Your task to perform on an android device: Search for hotels in Sydney Image 0: 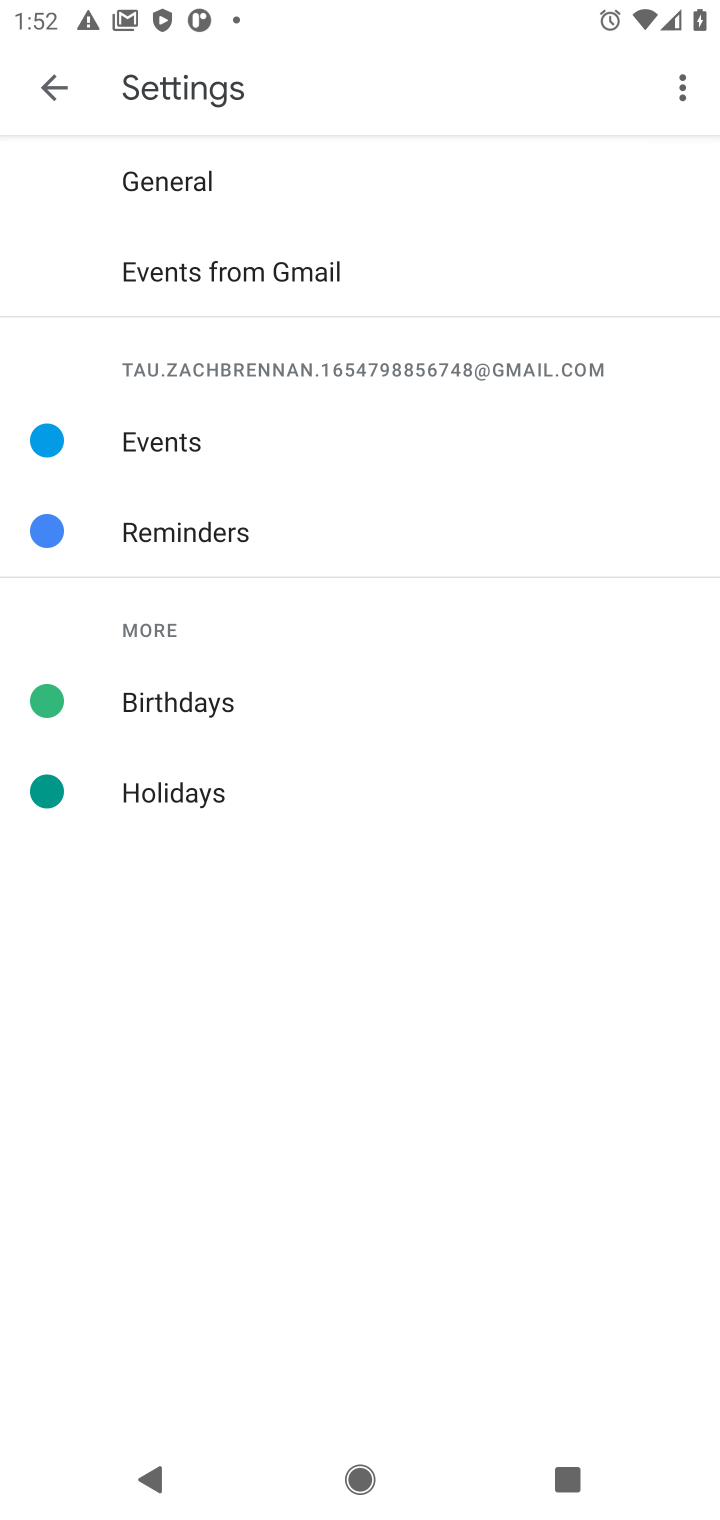
Step 0: press home button
Your task to perform on an android device: Search for hotels in Sydney Image 1: 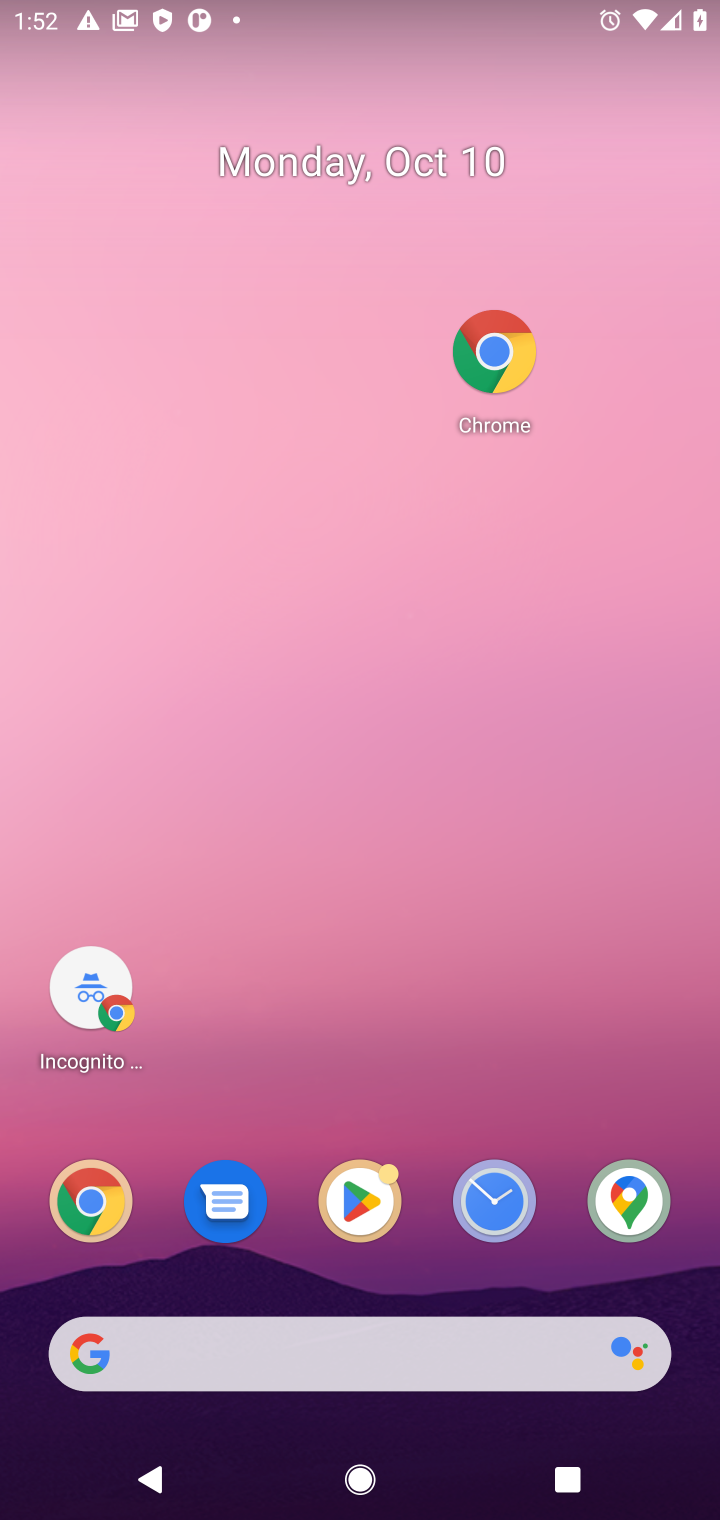
Step 1: click (215, 1350)
Your task to perform on an android device: Search for hotels in Sydney Image 2: 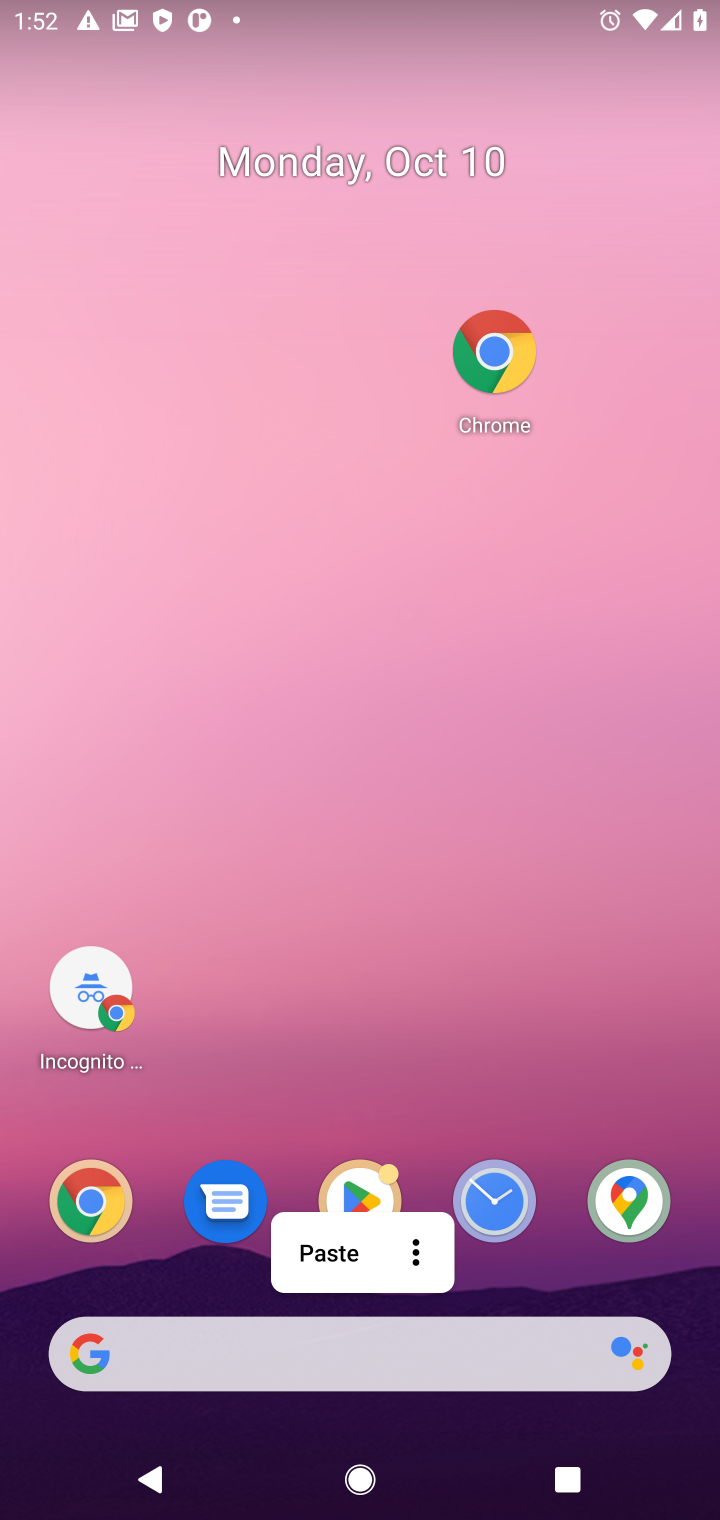
Step 2: click (503, 354)
Your task to perform on an android device: Search for hotels in Sydney Image 3: 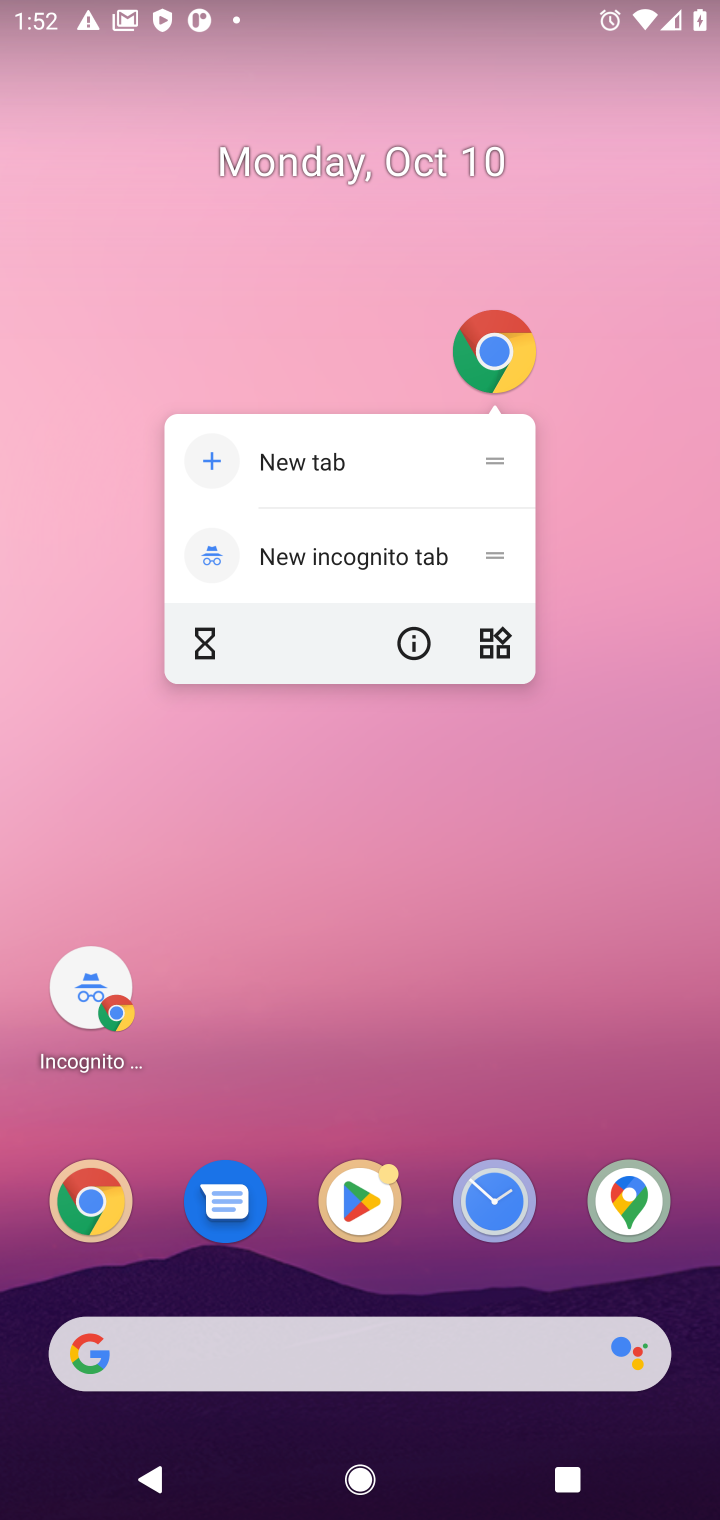
Step 3: click (503, 354)
Your task to perform on an android device: Search for hotels in Sydney Image 4: 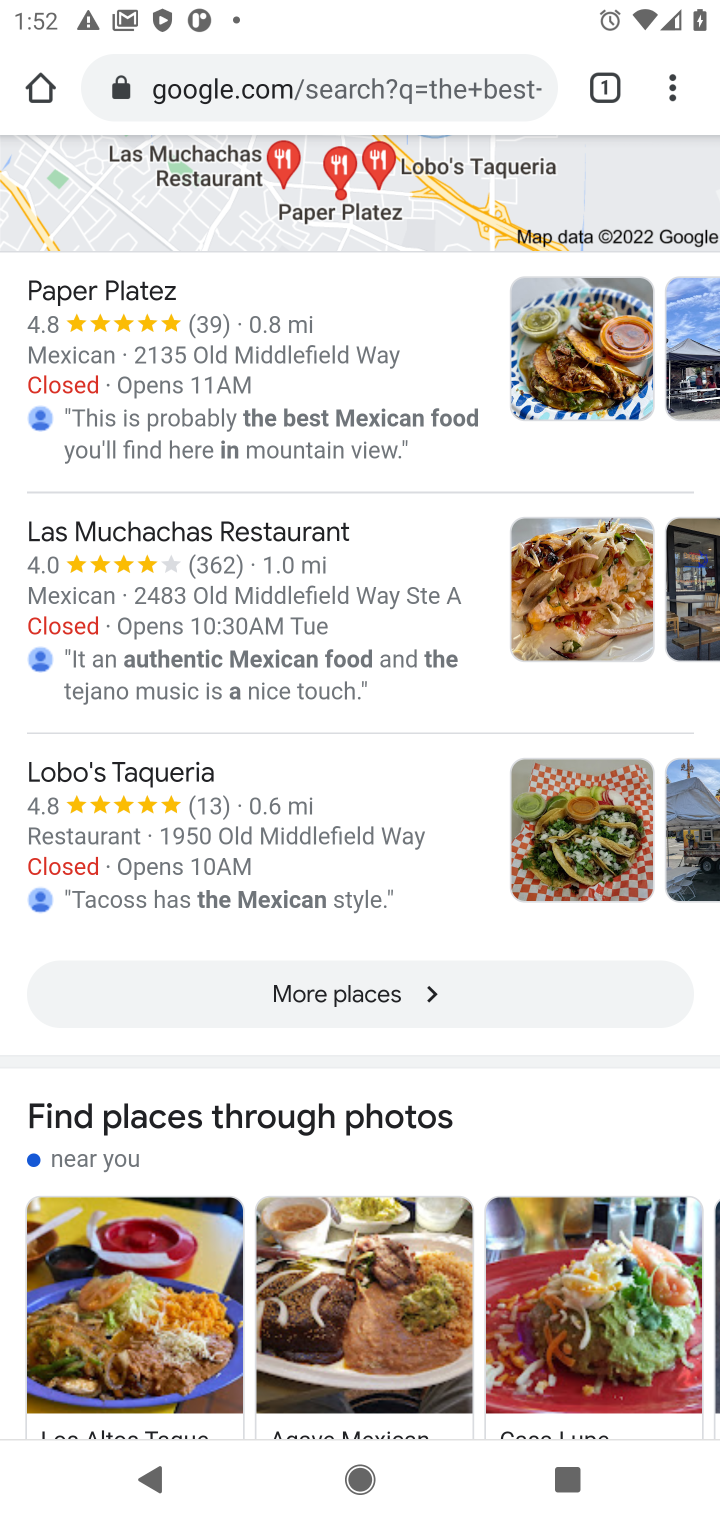
Step 4: click (409, 99)
Your task to perform on an android device: Search for hotels in Sydney Image 5: 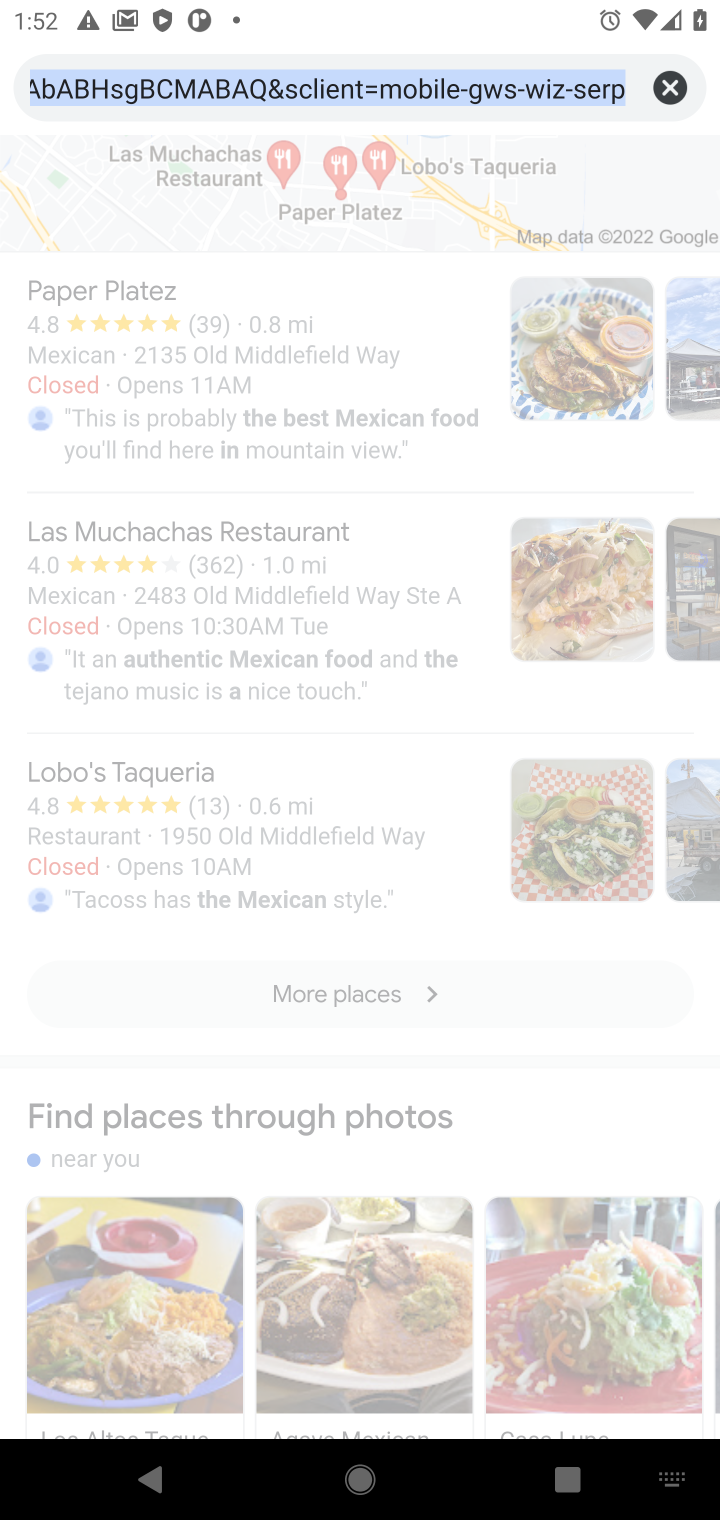
Step 5: click (668, 96)
Your task to perform on an android device: Search for hotels in Sydney Image 6: 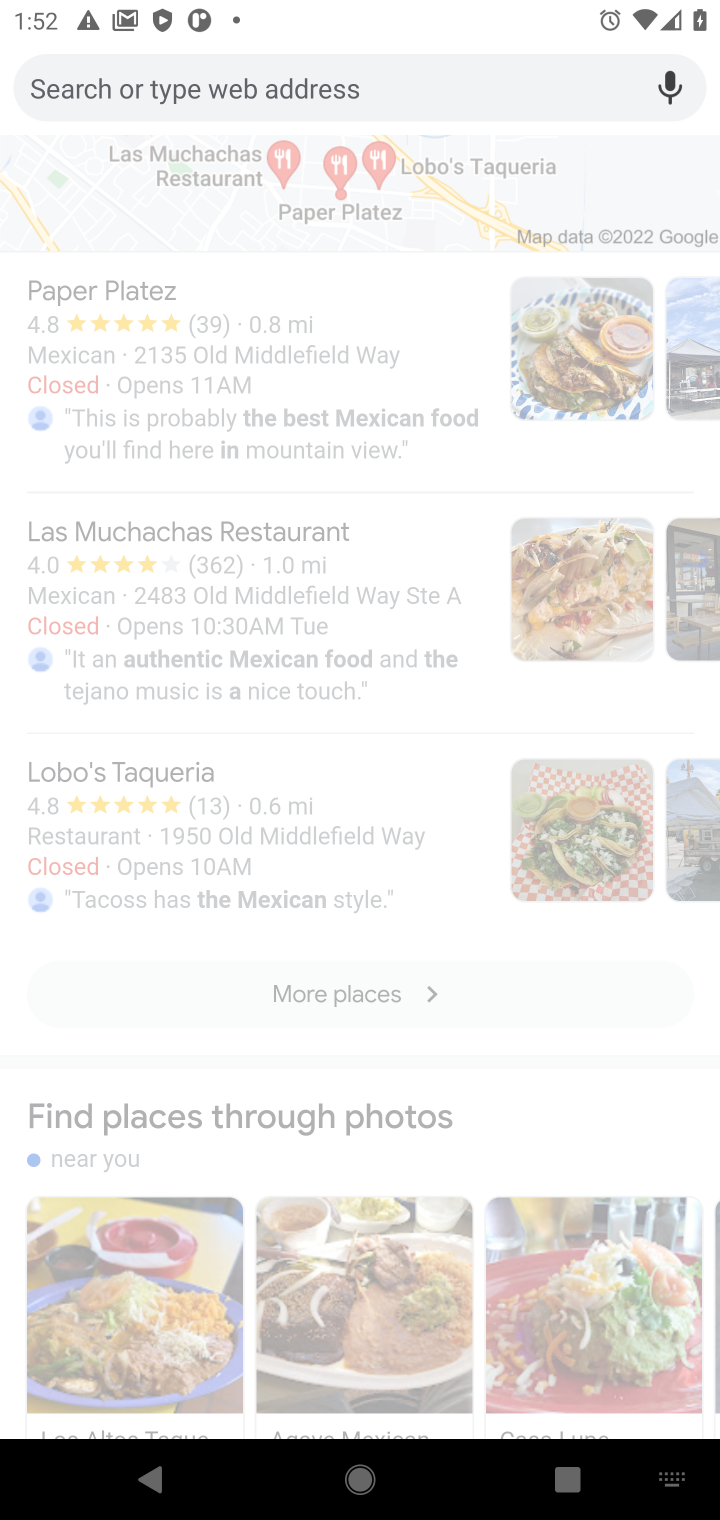
Step 6: type "hotels in sydney"
Your task to perform on an android device: Search for hotels in Sydney Image 7: 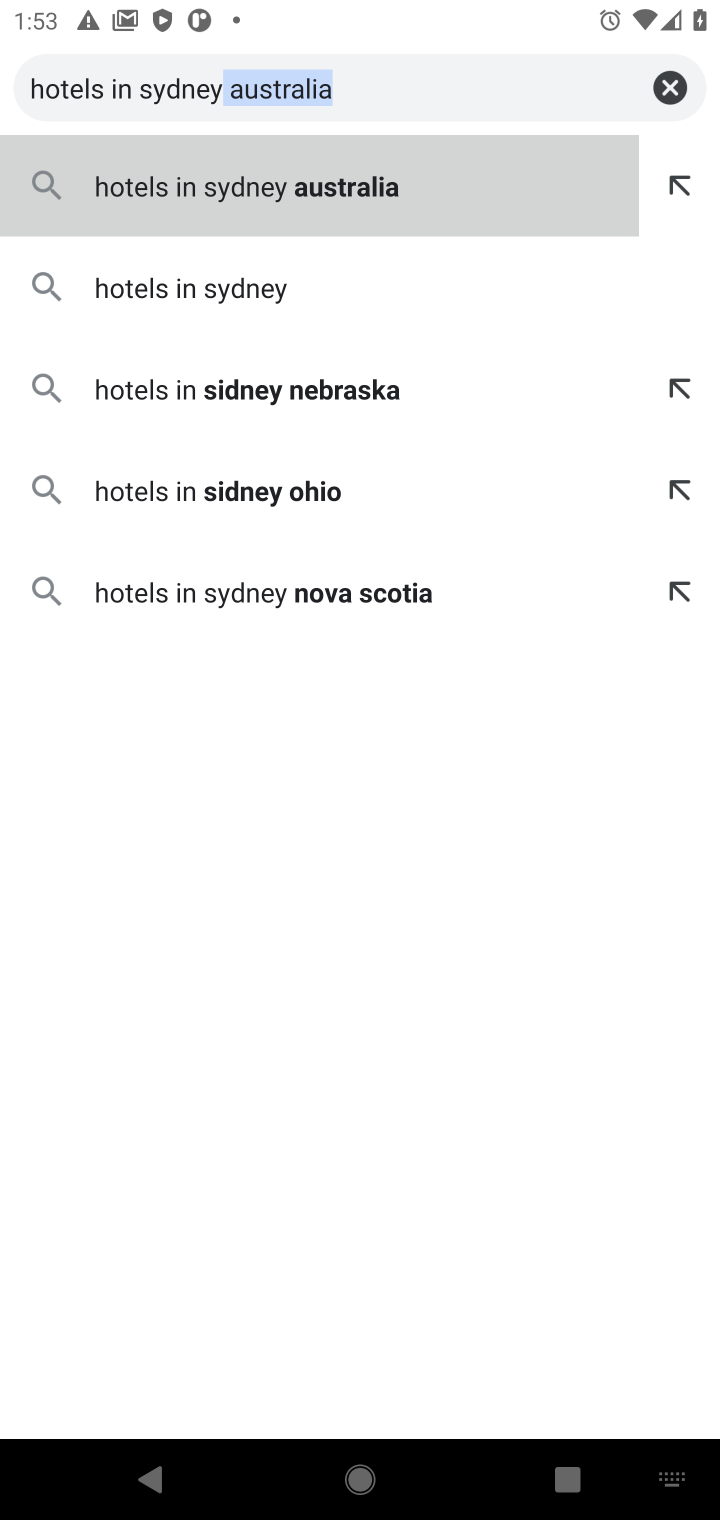
Step 7: click (225, 188)
Your task to perform on an android device: Search for hotels in Sydney Image 8: 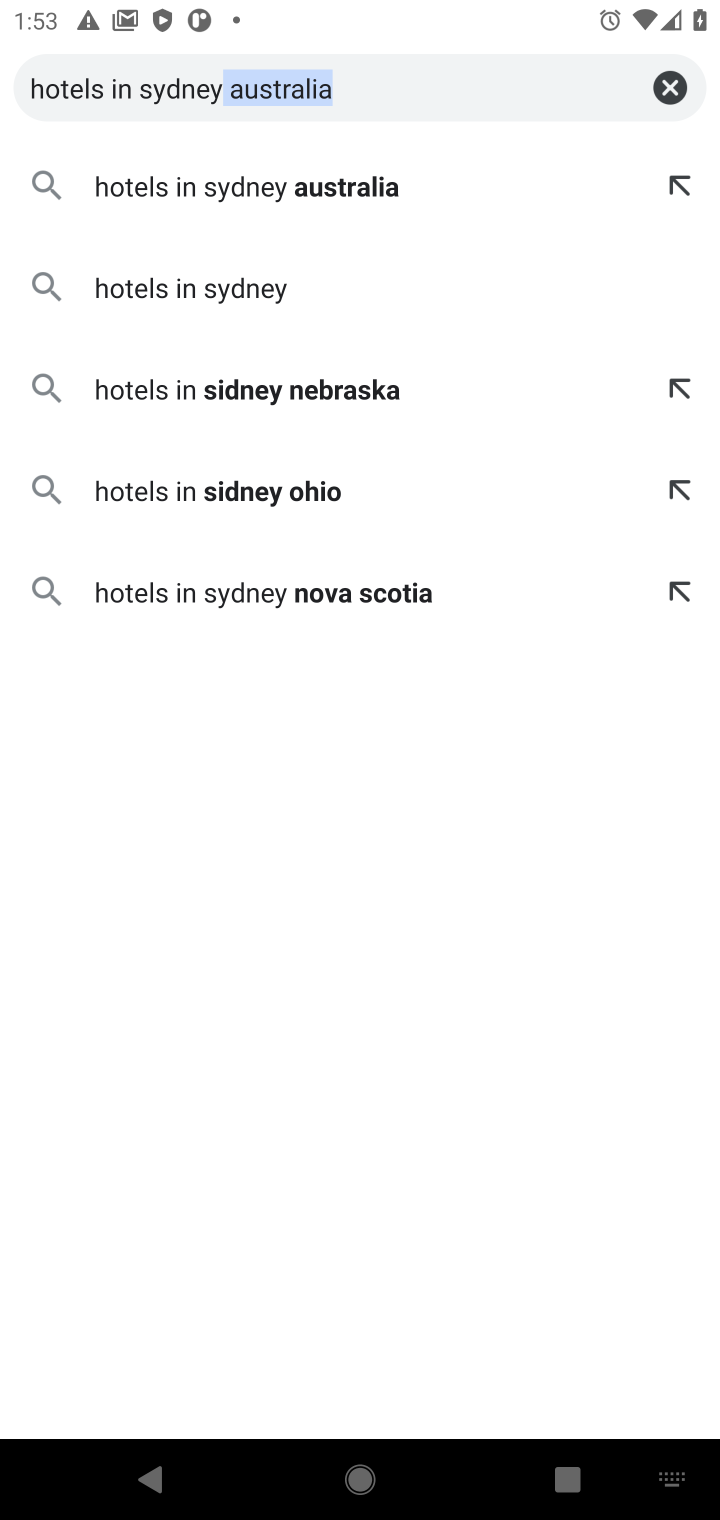
Step 8: click (224, 170)
Your task to perform on an android device: Search for hotels in Sydney Image 9: 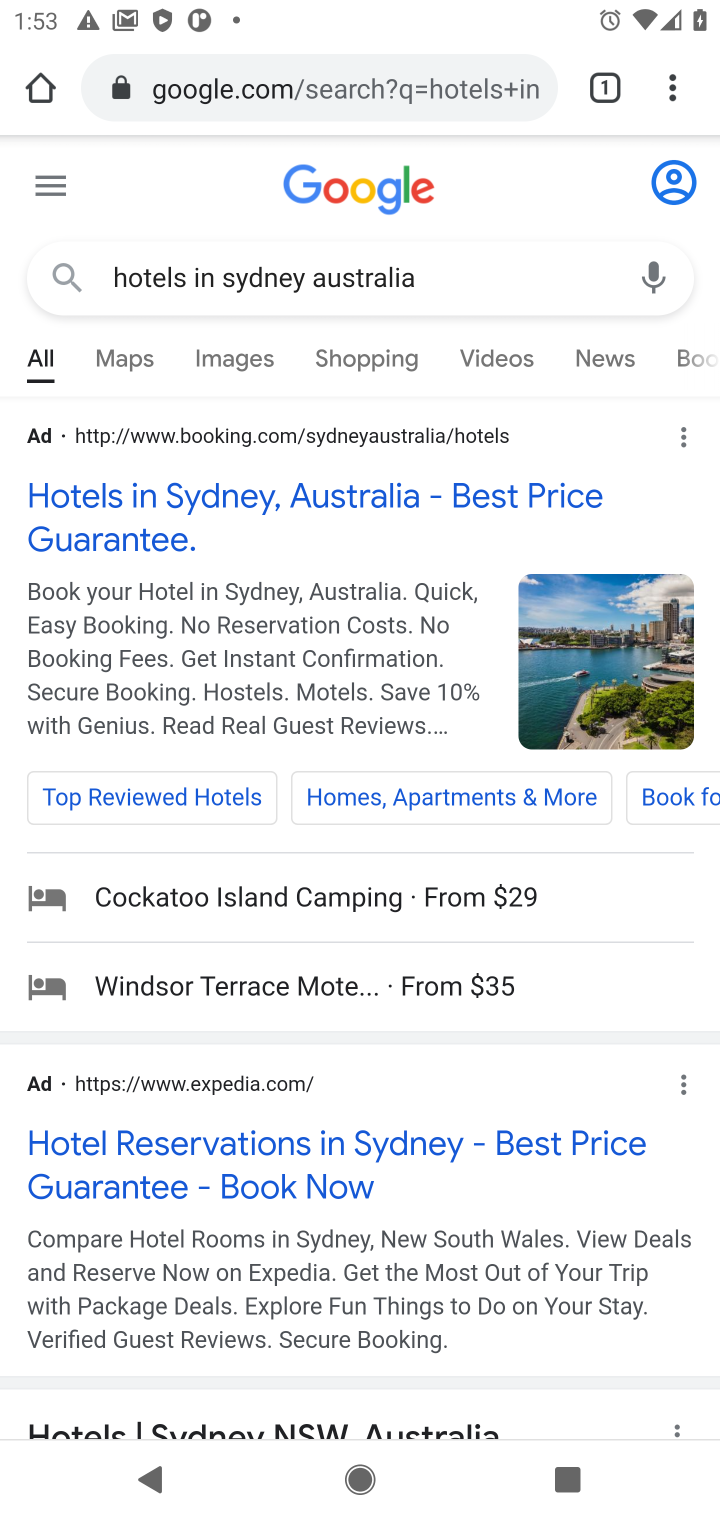
Step 9: click (179, 524)
Your task to perform on an android device: Search for hotels in Sydney Image 10: 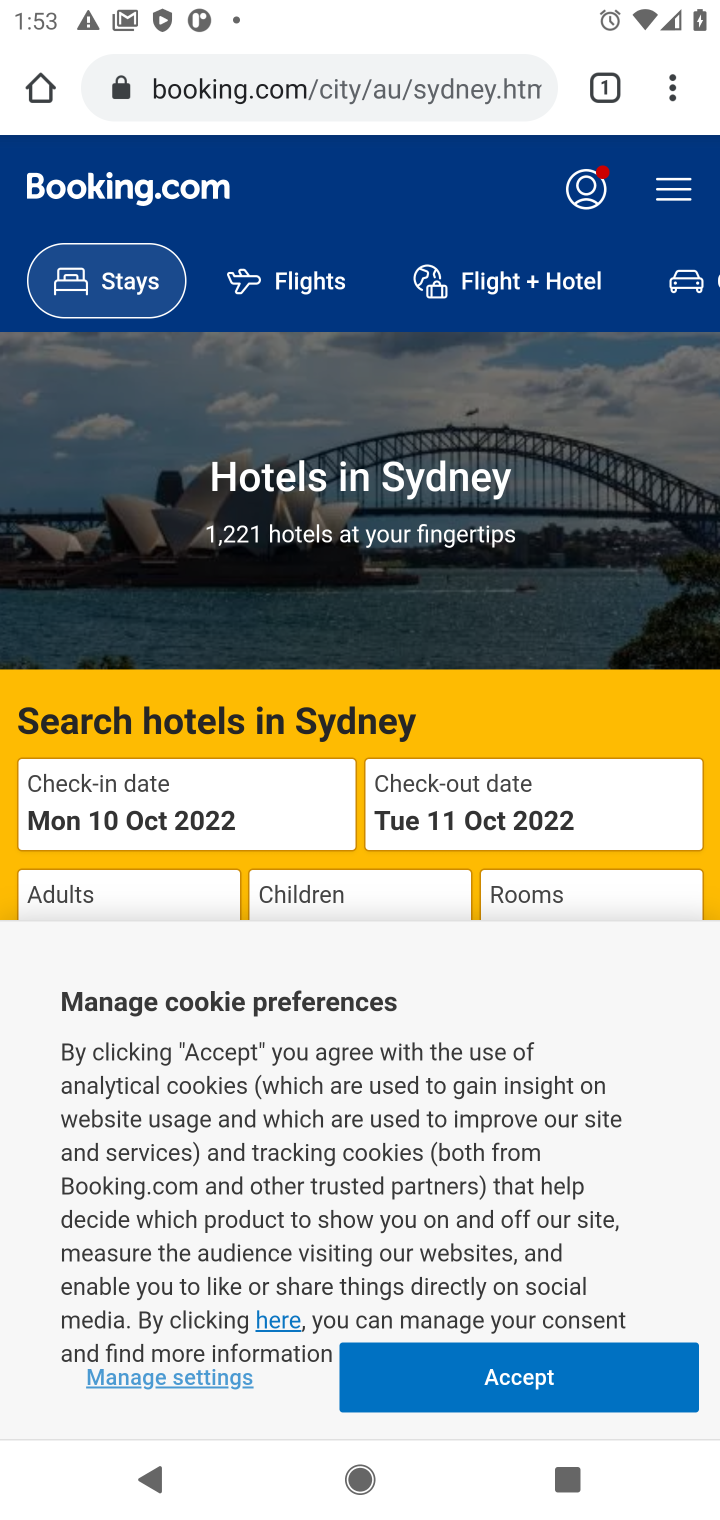
Step 10: task complete